Your task to perform on an android device: What is the recent news? Image 0: 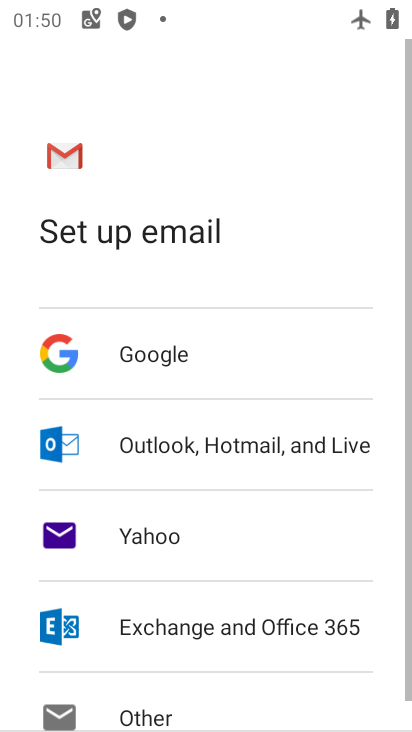
Step 0: press home button
Your task to perform on an android device: What is the recent news? Image 1: 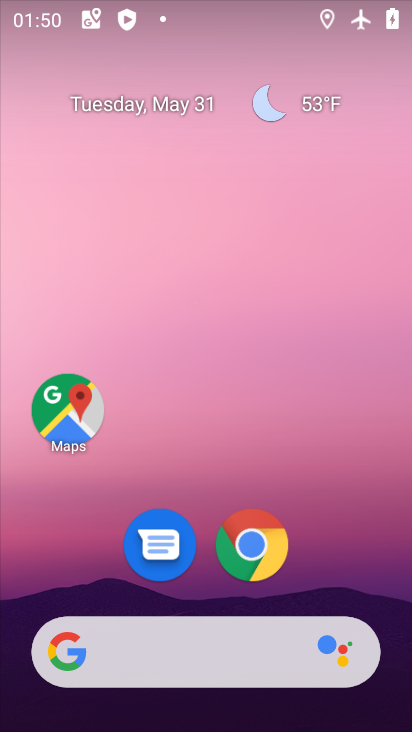
Step 1: task complete